Your task to perform on an android device: Go to Google Image 0: 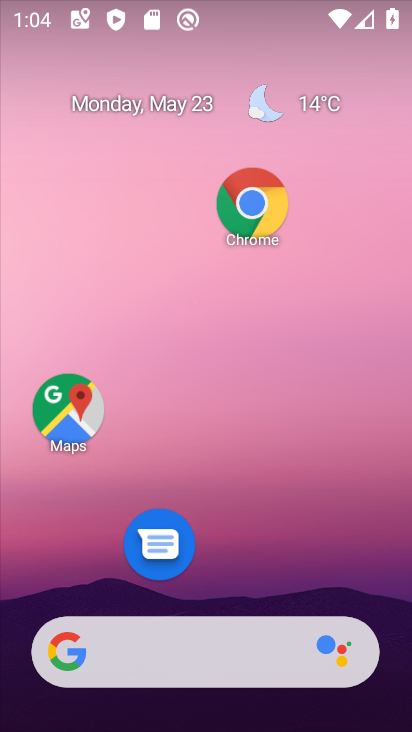
Step 0: drag from (306, 536) to (301, 44)
Your task to perform on an android device: Go to Google Image 1: 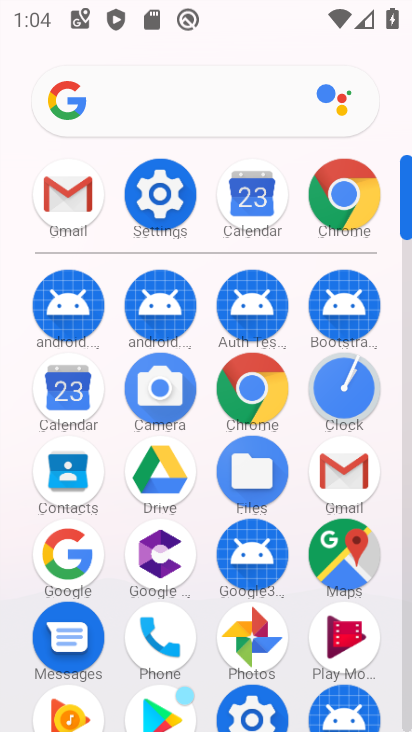
Step 1: click (64, 573)
Your task to perform on an android device: Go to Google Image 2: 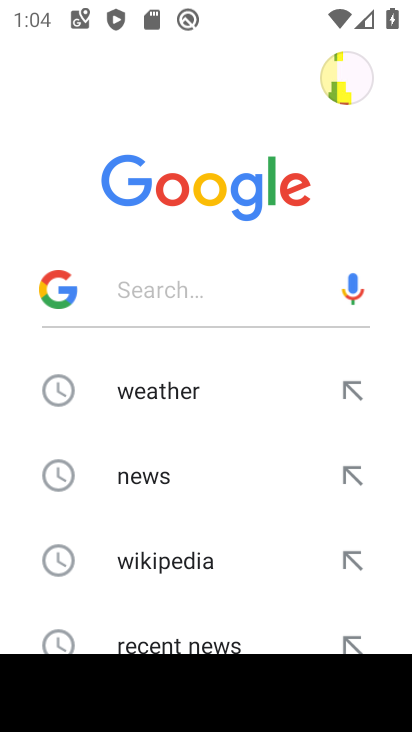
Step 2: task complete